Your task to perform on an android device: change timer sound Image 0: 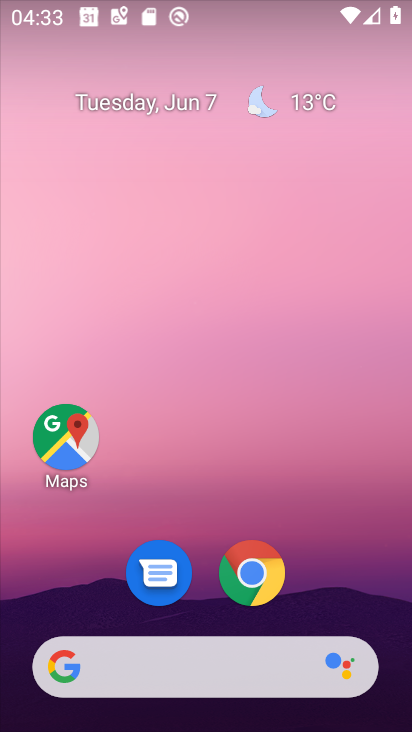
Step 0: press home button
Your task to perform on an android device: change timer sound Image 1: 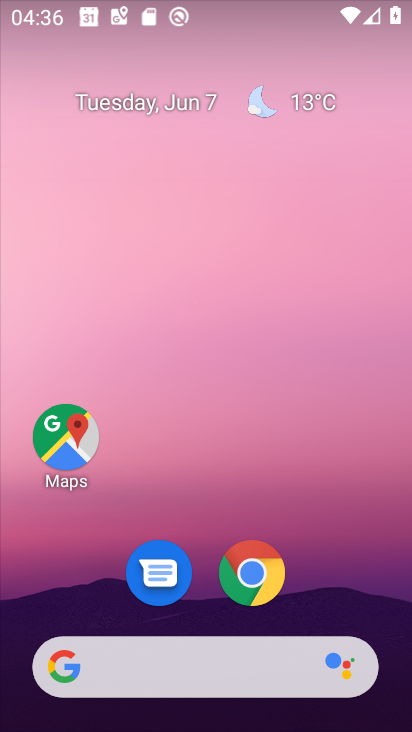
Step 1: drag from (362, 573) to (287, 56)
Your task to perform on an android device: change timer sound Image 2: 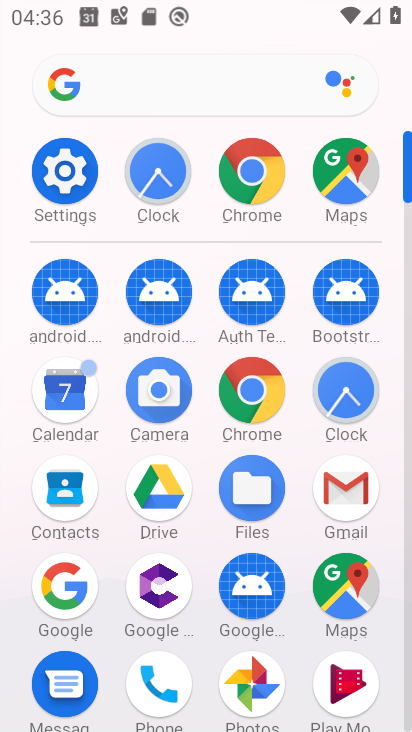
Step 2: click (336, 379)
Your task to perform on an android device: change timer sound Image 3: 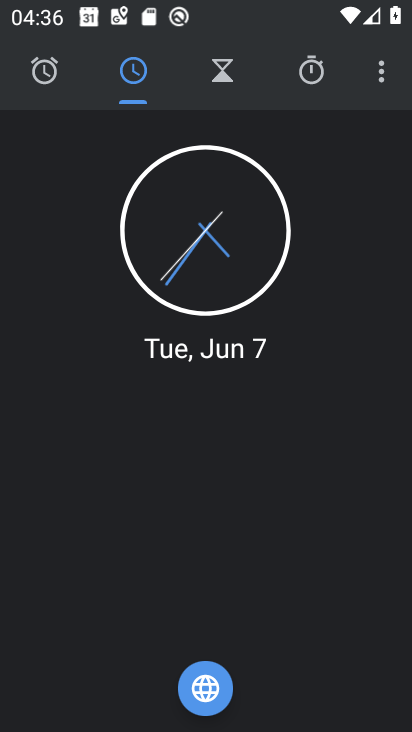
Step 3: click (383, 71)
Your task to perform on an android device: change timer sound Image 4: 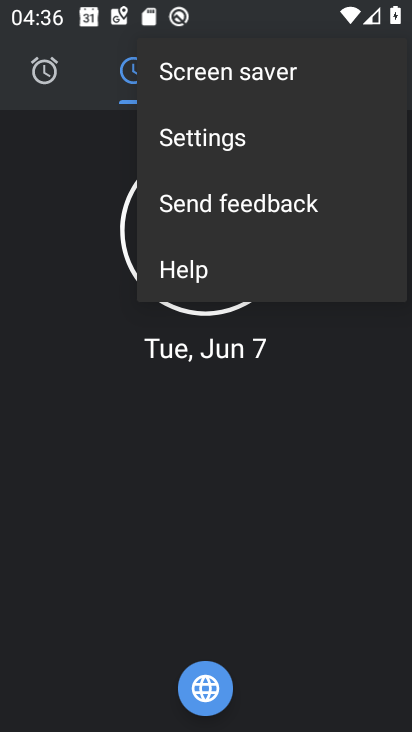
Step 4: click (210, 140)
Your task to perform on an android device: change timer sound Image 5: 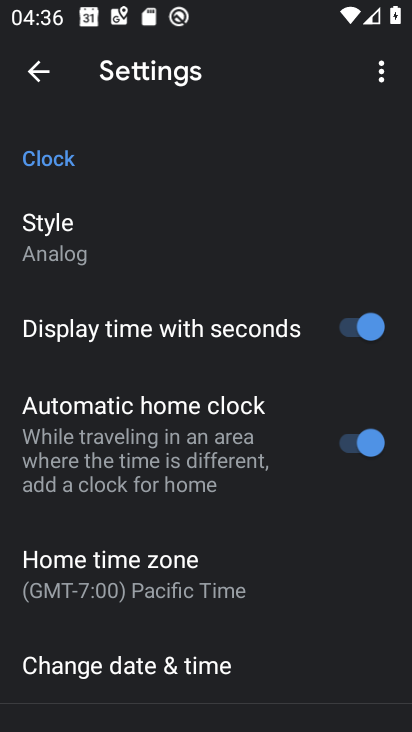
Step 5: drag from (231, 514) to (292, 185)
Your task to perform on an android device: change timer sound Image 6: 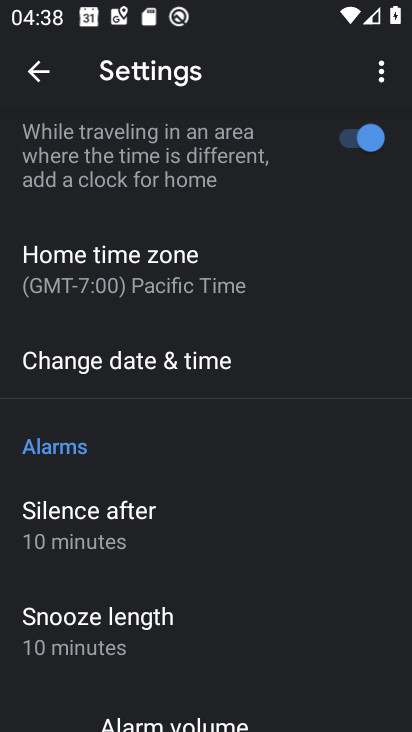
Step 6: drag from (156, 564) to (248, 382)
Your task to perform on an android device: change timer sound Image 7: 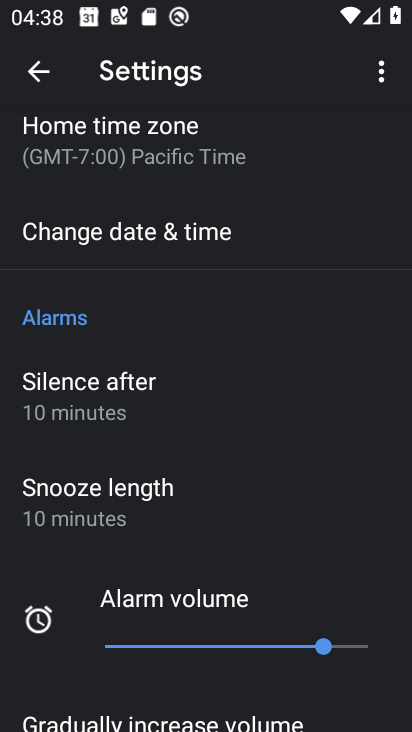
Step 7: drag from (145, 703) to (248, 437)
Your task to perform on an android device: change timer sound Image 8: 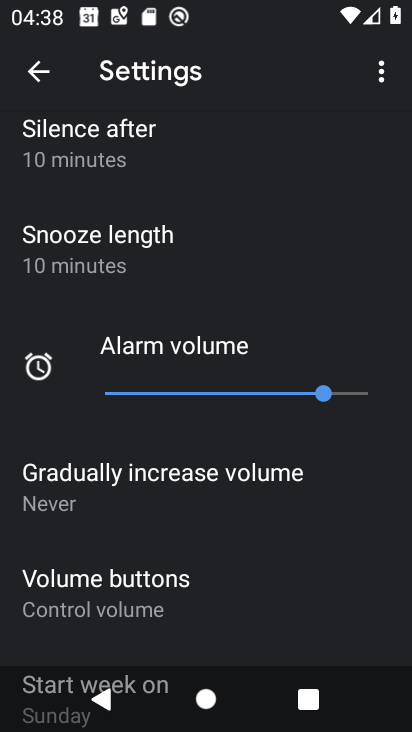
Step 8: drag from (201, 570) to (215, 395)
Your task to perform on an android device: change timer sound Image 9: 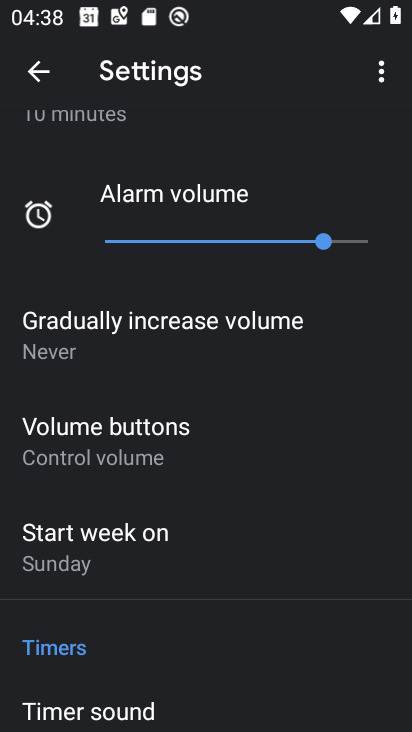
Step 9: drag from (153, 552) to (200, 368)
Your task to perform on an android device: change timer sound Image 10: 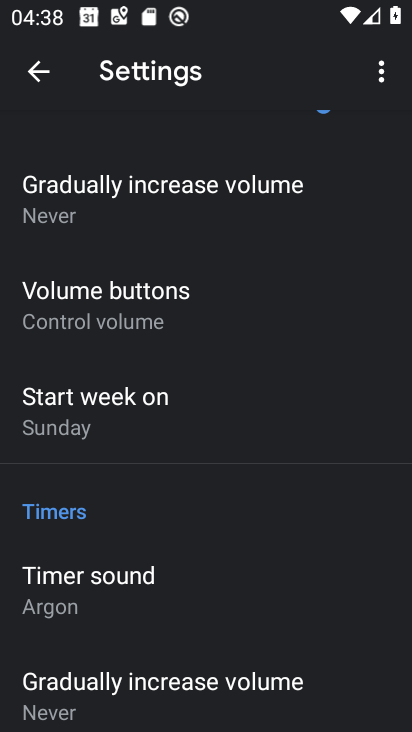
Step 10: click (160, 607)
Your task to perform on an android device: change timer sound Image 11: 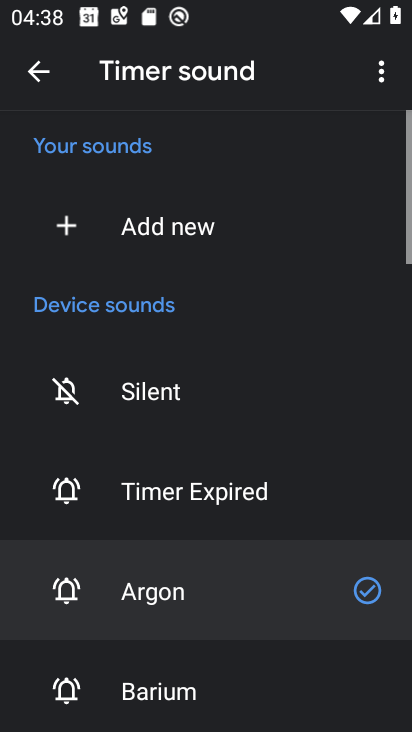
Step 11: click (236, 686)
Your task to perform on an android device: change timer sound Image 12: 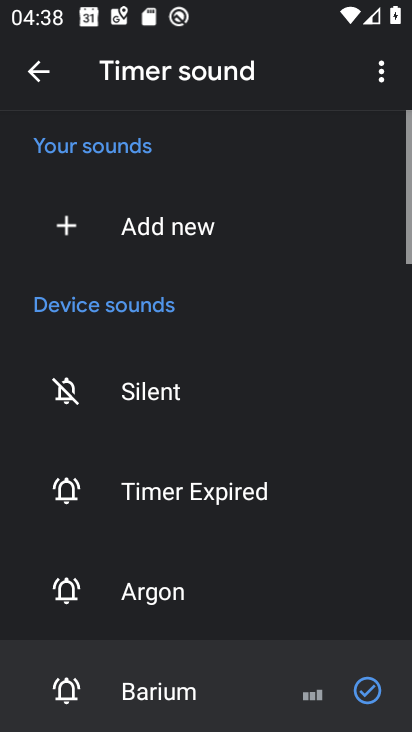
Step 12: task complete